Your task to perform on an android device: toggle location history Image 0: 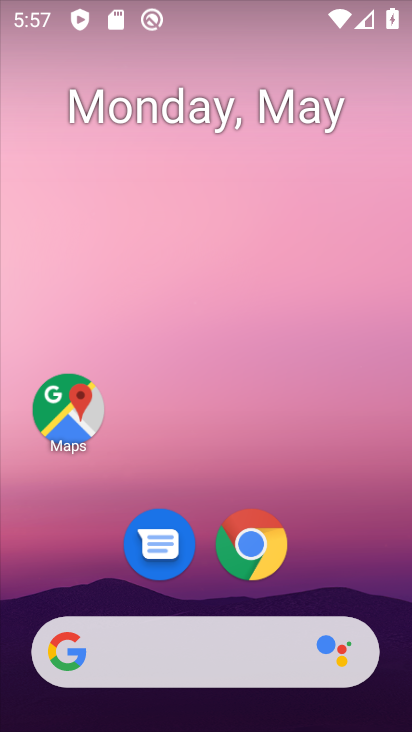
Step 0: drag from (347, 473) to (191, 22)
Your task to perform on an android device: toggle location history Image 1: 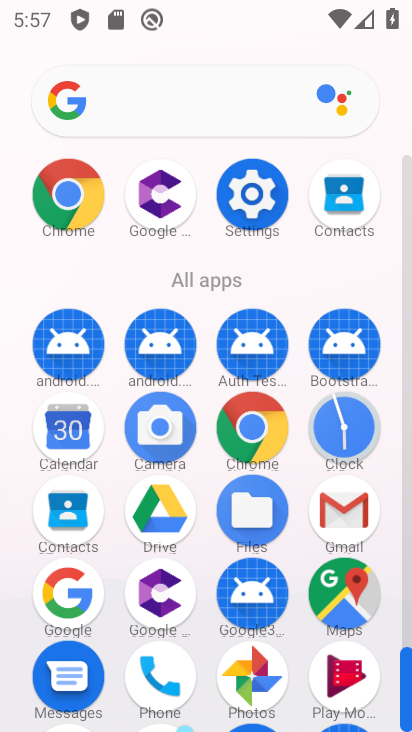
Step 1: click (238, 217)
Your task to perform on an android device: toggle location history Image 2: 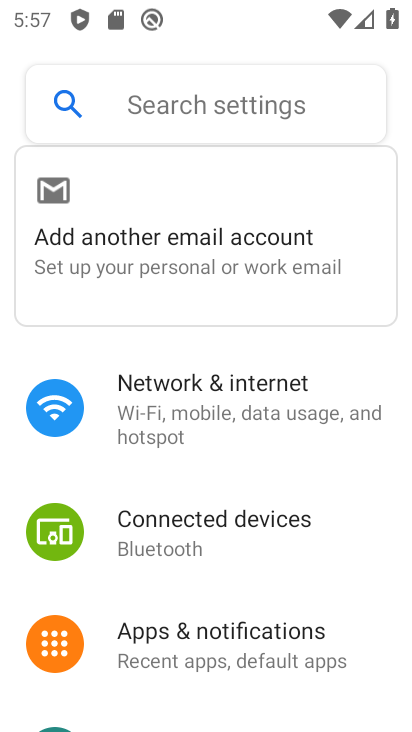
Step 2: drag from (272, 416) to (277, 4)
Your task to perform on an android device: toggle location history Image 3: 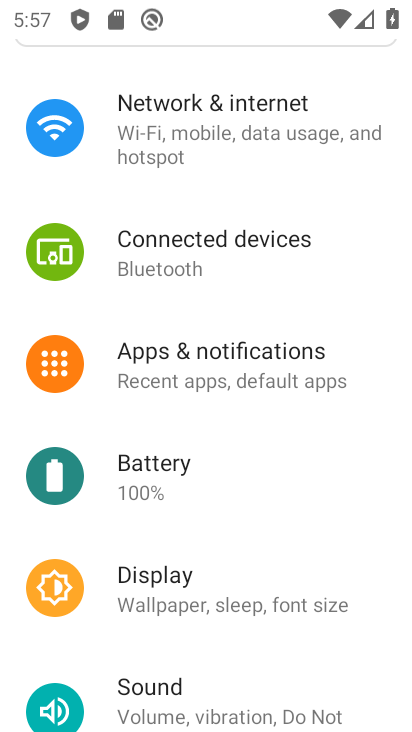
Step 3: drag from (275, 594) to (256, 196)
Your task to perform on an android device: toggle location history Image 4: 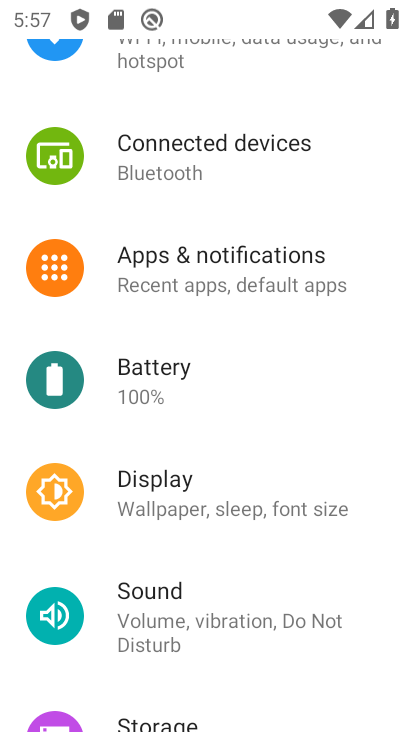
Step 4: drag from (272, 648) to (221, 216)
Your task to perform on an android device: toggle location history Image 5: 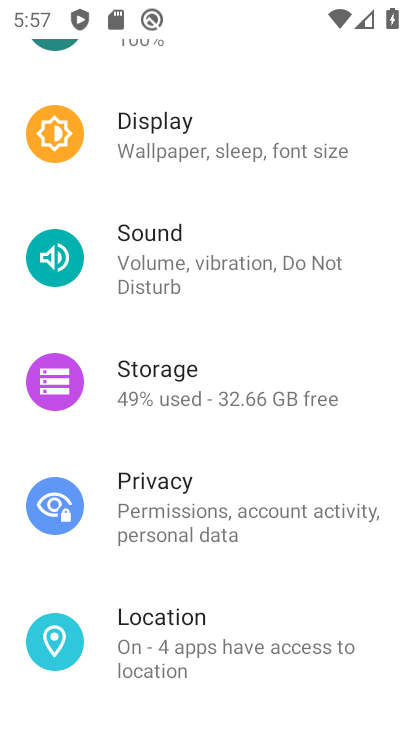
Step 5: click (201, 647)
Your task to perform on an android device: toggle location history Image 6: 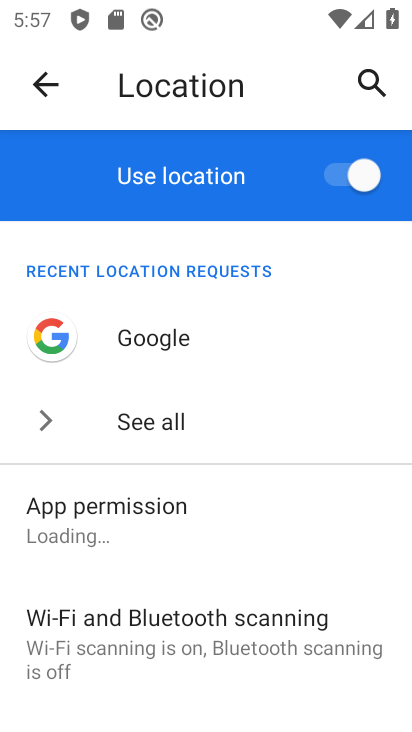
Step 6: drag from (276, 522) to (219, 83)
Your task to perform on an android device: toggle location history Image 7: 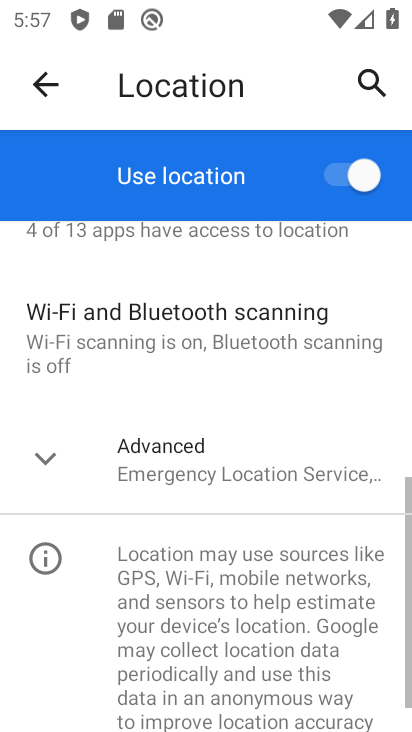
Step 7: click (250, 450)
Your task to perform on an android device: toggle location history Image 8: 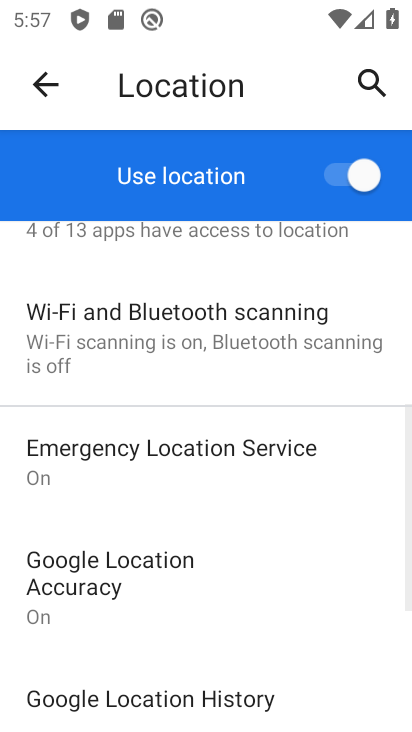
Step 8: click (233, 709)
Your task to perform on an android device: toggle location history Image 9: 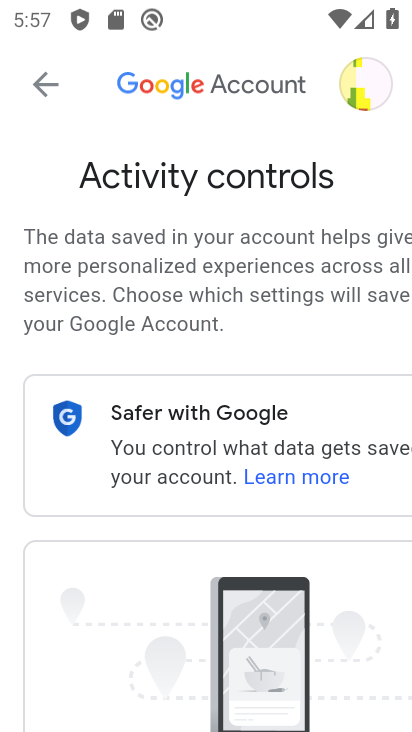
Step 9: drag from (210, 540) to (177, 24)
Your task to perform on an android device: toggle location history Image 10: 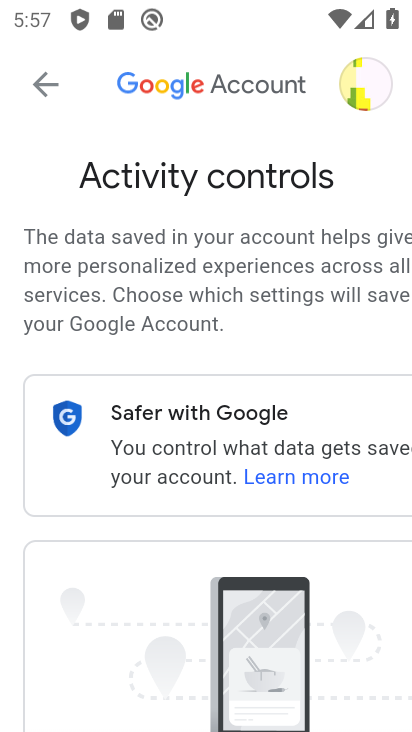
Step 10: drag from (316, 627) to (264, 120)
Your task to perform on an android device: toggle location history Image 11: 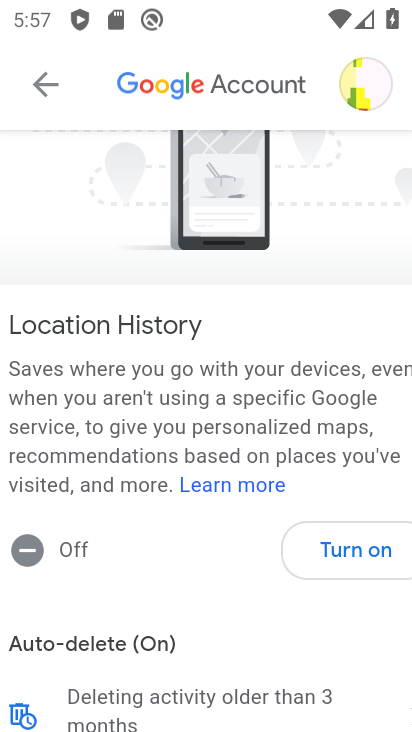
Step 11: click (343, 538)
Your task to perform on an android device: toggle location history Image 12: 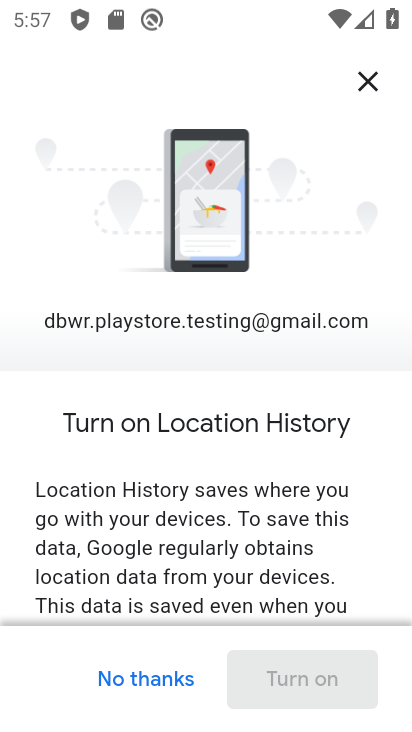
Step 12: drag from (238, 572) to (248, 163)
Your task to perform on an android device: toggle location history Image 13: 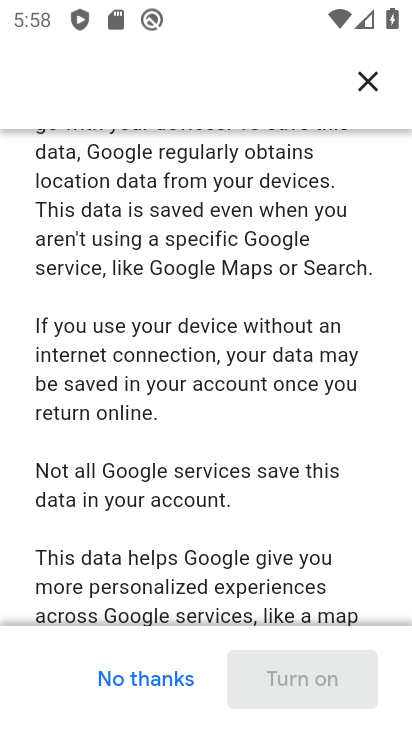
Step 13: drag from (278, 508) to (274, 180)
Your task to perform on an android device: toggle location history Image 14: 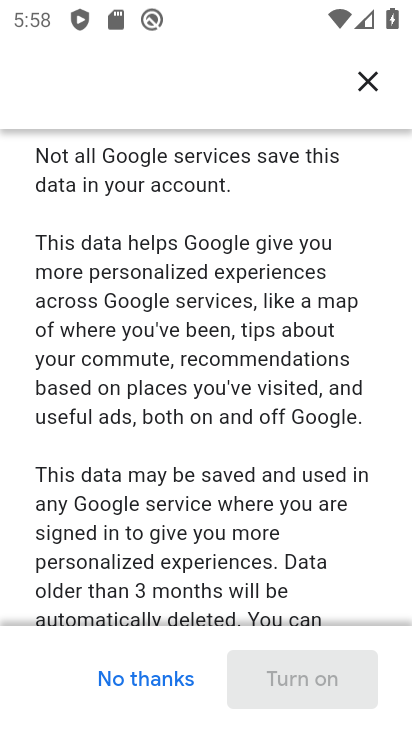
Step 14: drag from (257, 563) to (270, 166)
Your task to perform on an android device: toggle location history Image 15: 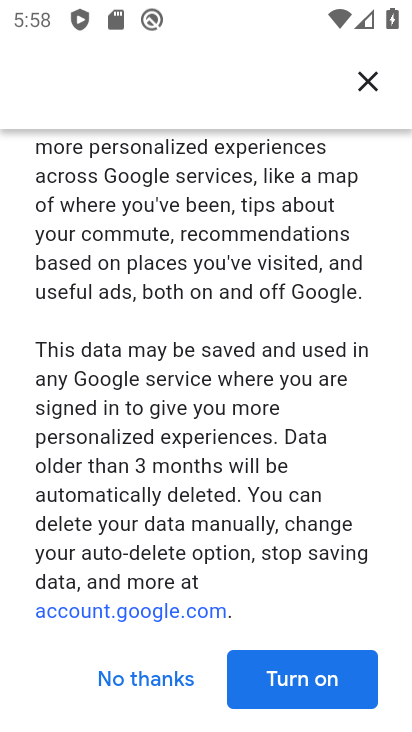
Step 15: click (299, 140)
Your task to perform on an android device: toggle location history Image 16: 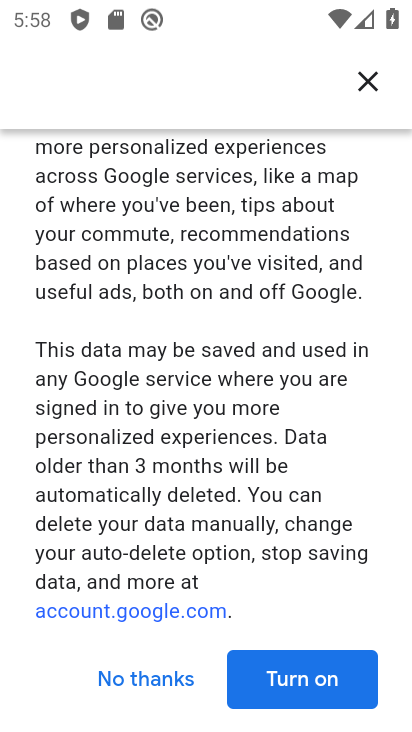
Step 16: click (281, 658)
Your task to perform on an android device: toggle location history Image 17: 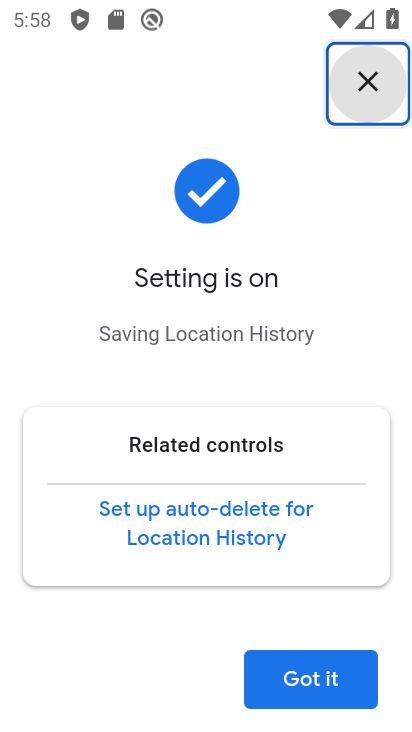
Step 17: click (334, 683)
Your task to perform on an android device: toggle location history Image 18: 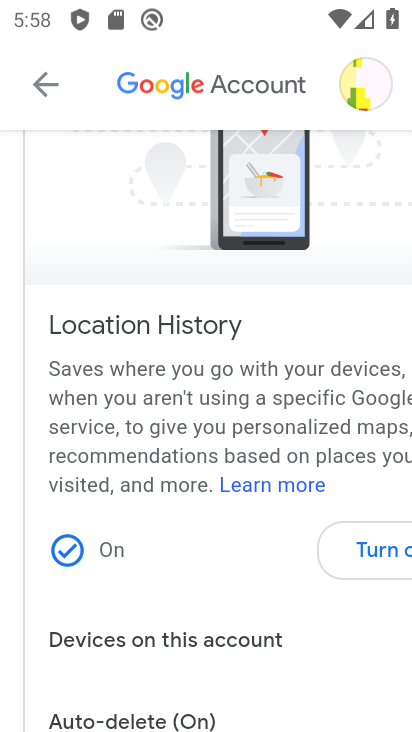
Step 18: task complete